Your task to perform on an android device: toggle wifi Image 0: 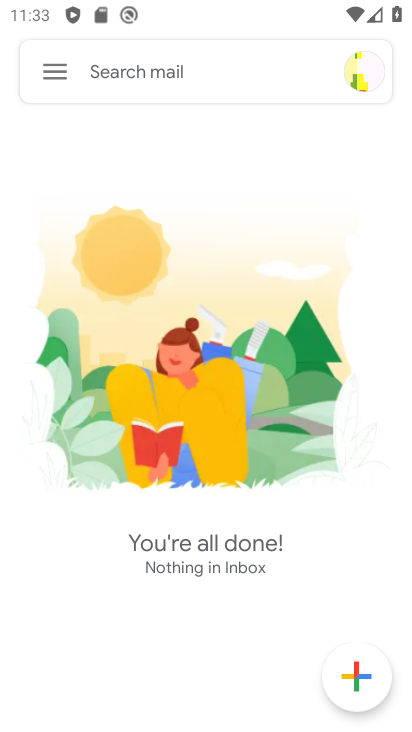
Step 0: press back button
Your task to perform on an android device: toggle wifi Image 1: 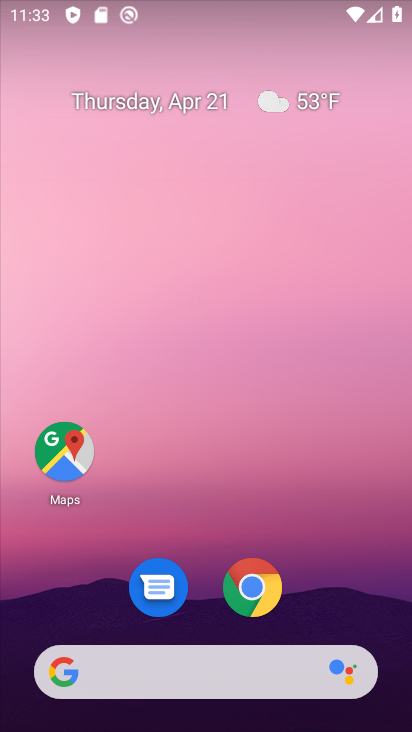
Step 1: drag from (82, 43) to (148, 494)
Your task to perform on an android device: toggle wifi Image 2: 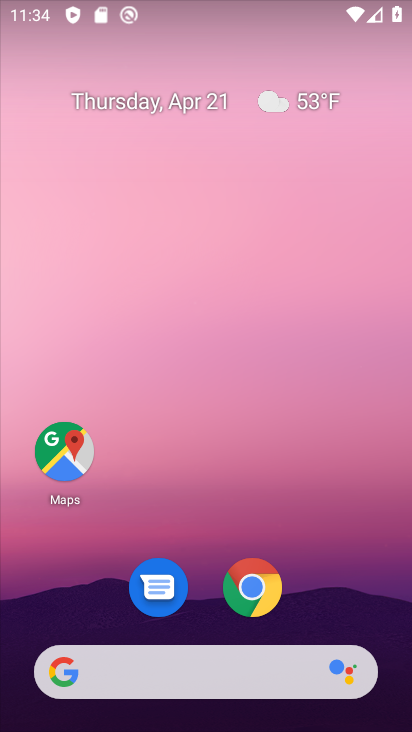
Step 2: drag from (78, 37) to (155, 582)
Your task to perform on an android device: toggle wifi Image 3: 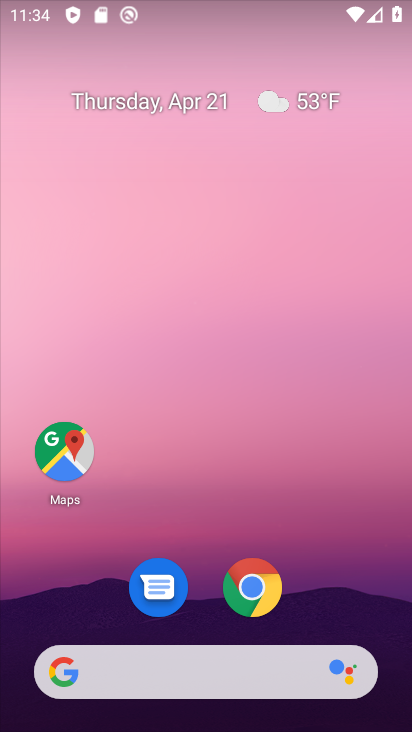
Step 3: drag from (67, 23) to (154, 566)
Your task to perform on an android device: toggle wifi Image 4: 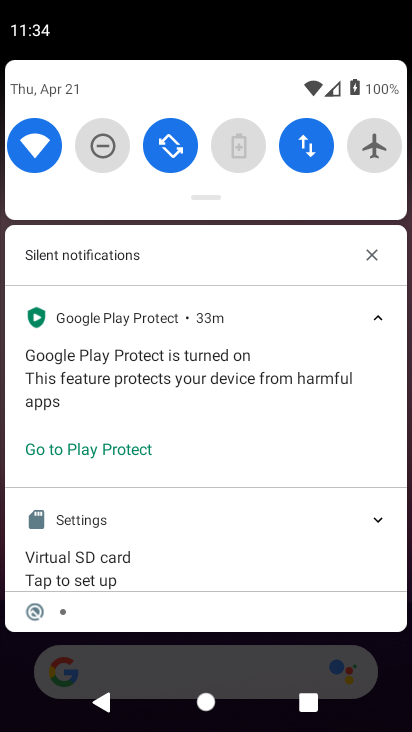
Step 4: click (39, 139)
Your task to perform on an android device: toggle wifi Image 5: 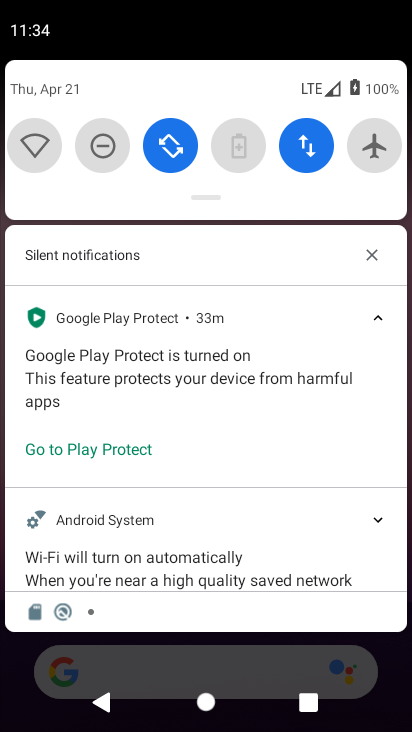
Step 5: task complete